Your task to perform on an android device: Go to Google Image 0: 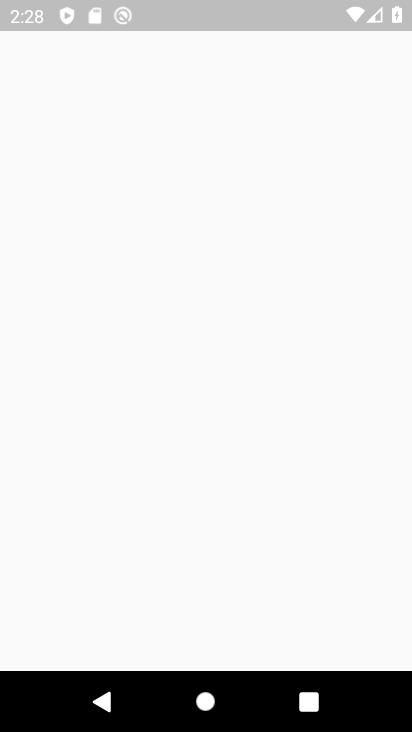
Step 0: press home button
Your task to perform on an android device: Go to Google Image 1: 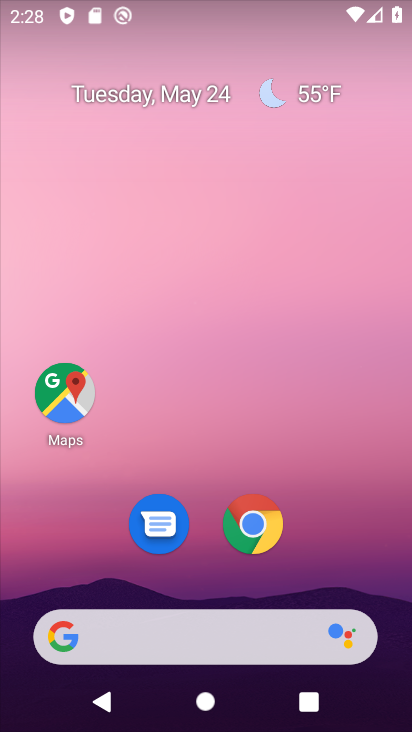
Step 1: drag from (221, 450) to (237, 116)
Your task to perform on an android device: Go to Google Image 2: 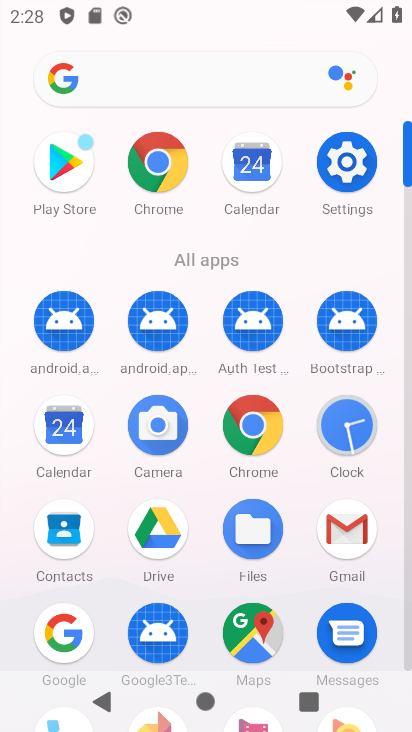
Step 2: click (64, 74)
Your task to perform on an android device: Go to Google Image 3: 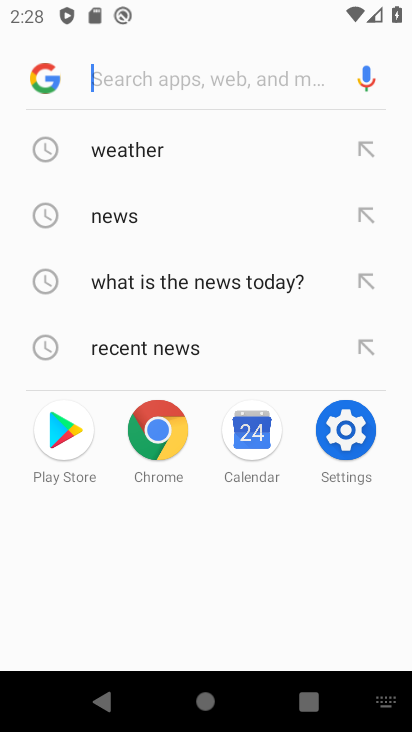
Step 3: click (38, 84)
Your task to perform on an android device: Go to Google Image 4: 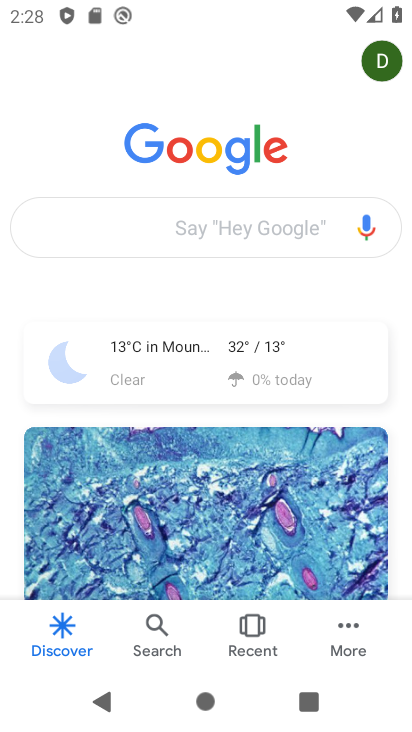
Step 4: task complete